Your task to perform on an android device: Show the shopping cart on target.com. Add "razer kraken" to the cart on target.com, then select checkout. Image 0: 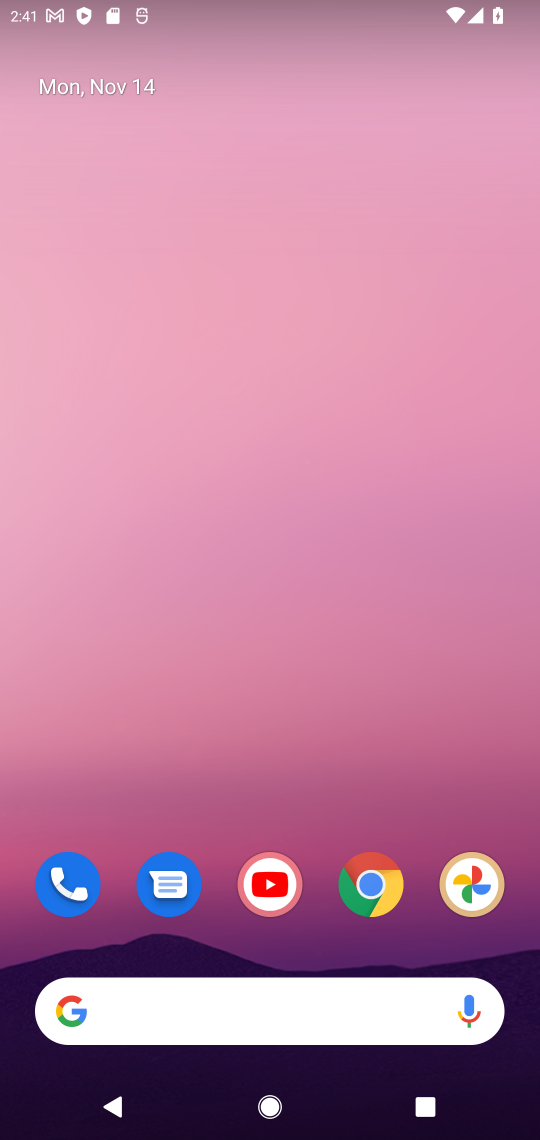
Step 0: click (369, 901)
Your task to perform on an android device: Show the shopping cart on target.com. Add "razer kraken" to the cart on target.com, then select checkout. Image 1: 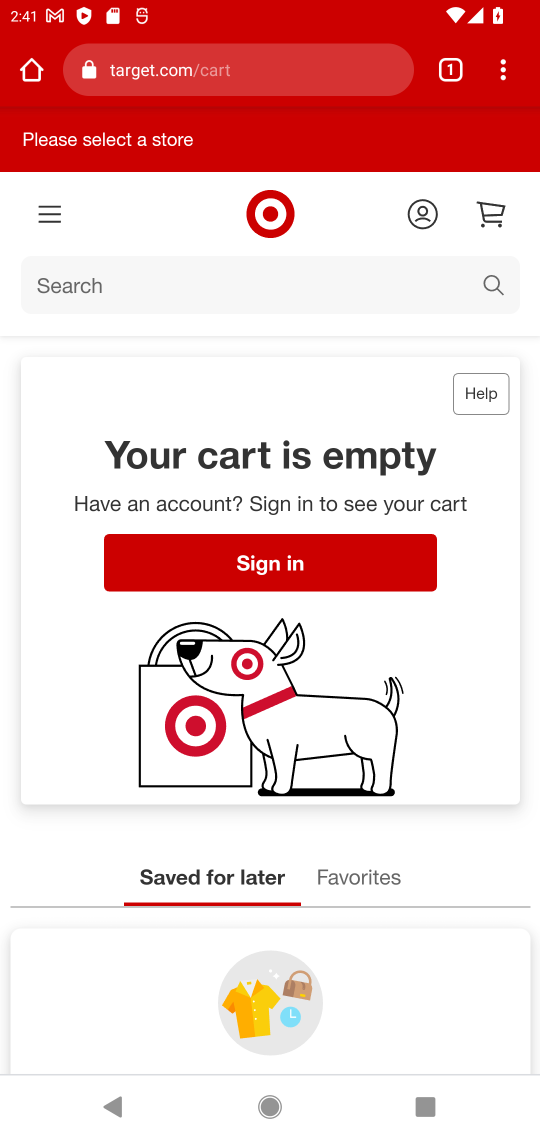
Step 1: click (296, 80)
Your task to perform on an android device: Show the shopping cart on target.com. Add "razer kraken" to the cart on target.com, then select checkout. Image 2: 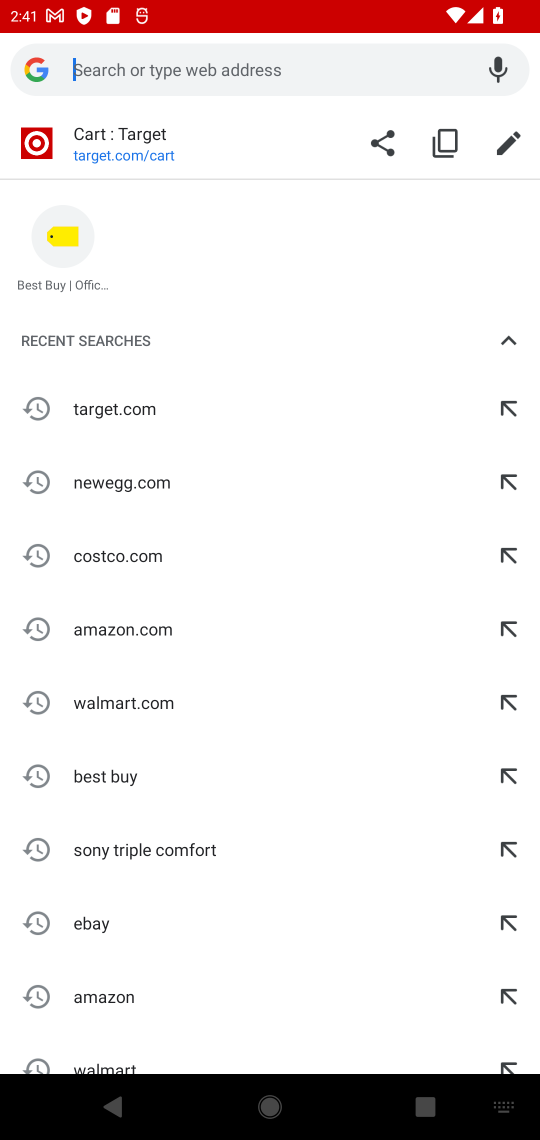
Step 2: press back button
Your task to perform on an android device: Show the shopping cart on target.com. Add "razer kraken" to the cart on target.com, then select checkout. Image 3: 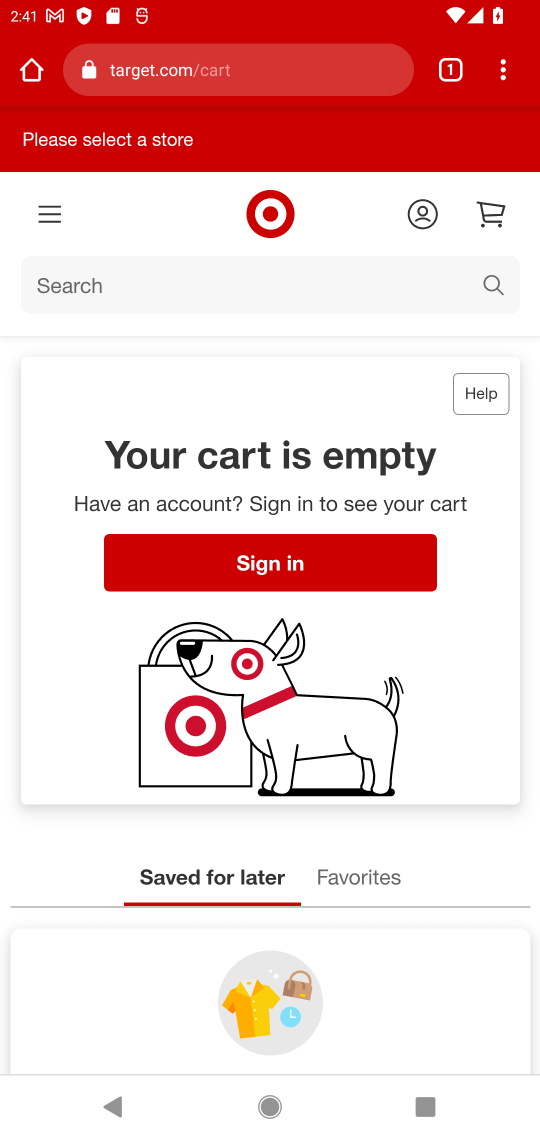
Step 3: click (510, 288)
Your task to perform on an android device: Show the shopping cart on target.com. Add "razer kraken" to the cart on target.com, then select checkout. Image 4: 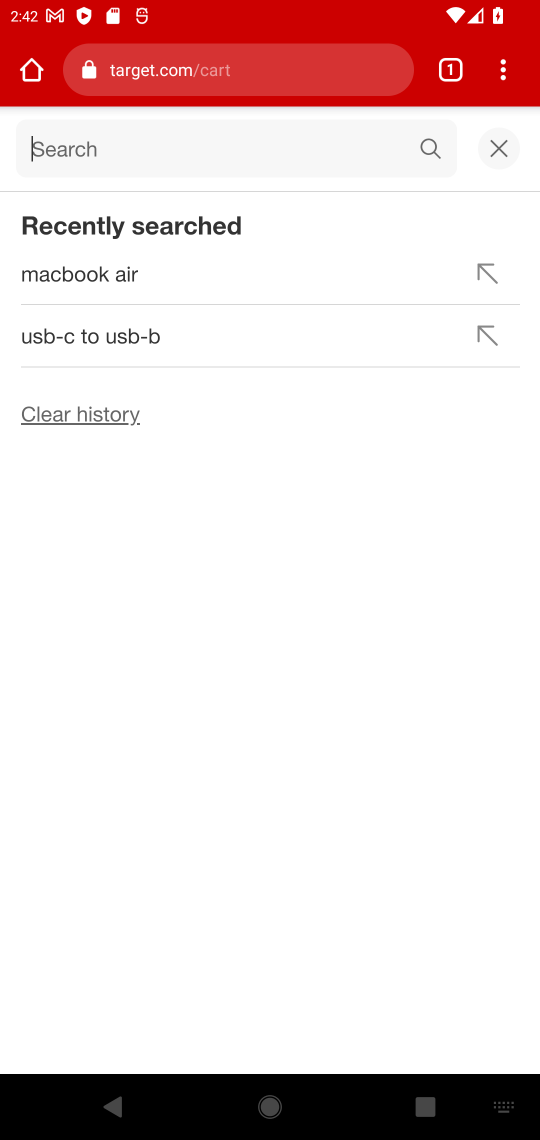
Step 4: type "razer kraken"
Your task to perform on an android device: Show the shopping cart on target.com. Add "razer kraken" to the cart on target.com, then select checkout. Image 5: 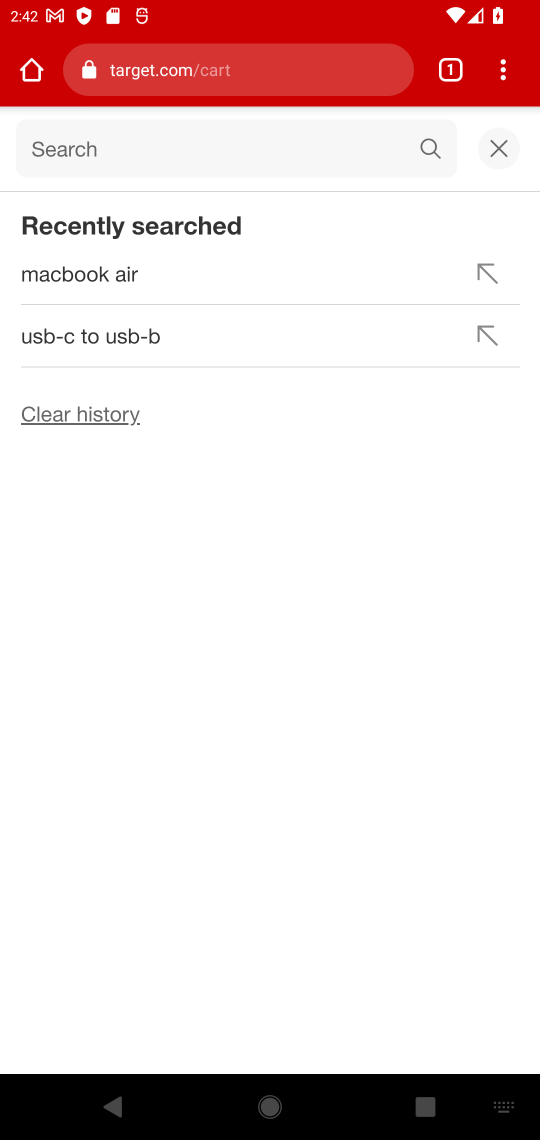
Step 5: press enter
Your task to perform on an android device: Show the shopping cart on target.com. Add "razer kraken" to the cart on target.com, then select checkout. Image 6: 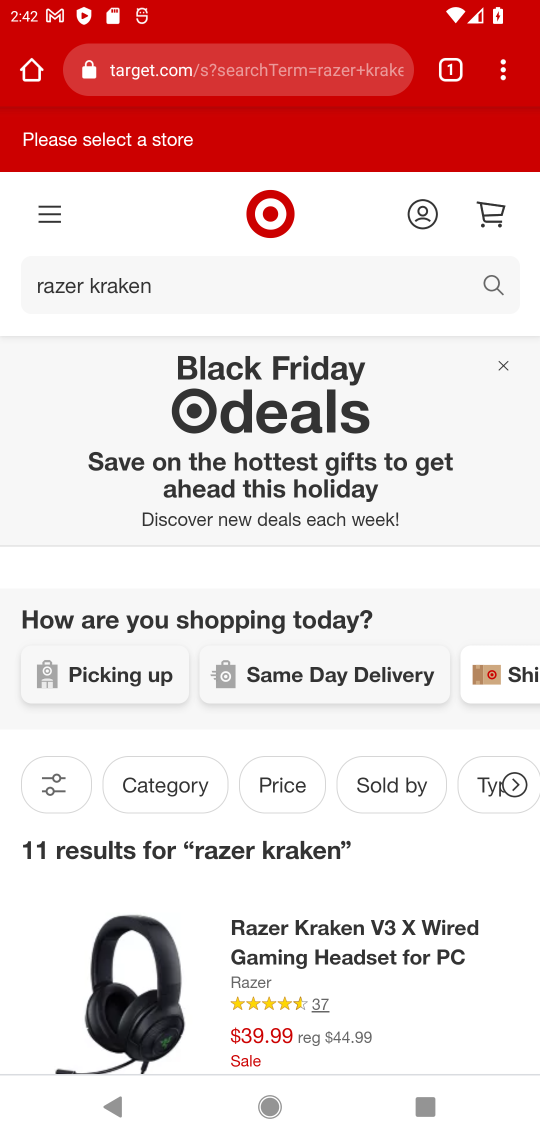
Step 6: click (116, 954)
Your task to perform on an android device: Show the shopping cart on target.com. Add "razer kraken" to the cart on target.com, then select checkout. Image 7: 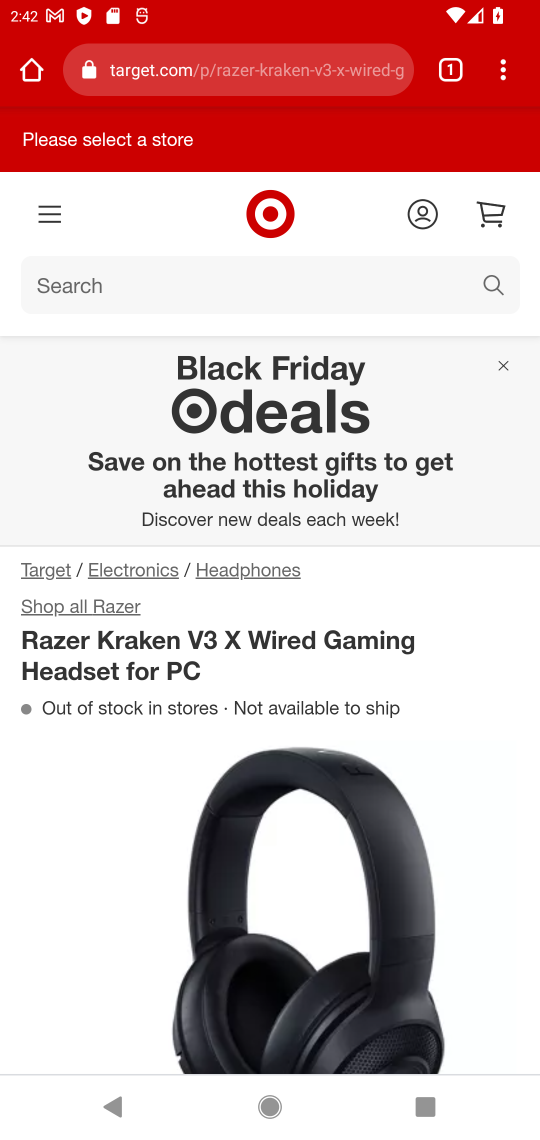
Step 7: drag from (334, 817) to (459, 313)
Your task to perform on an android device: Show the shopping cart on target.com. Add "razer kraken" to the cart on target.com, then select checkout. Image 8: 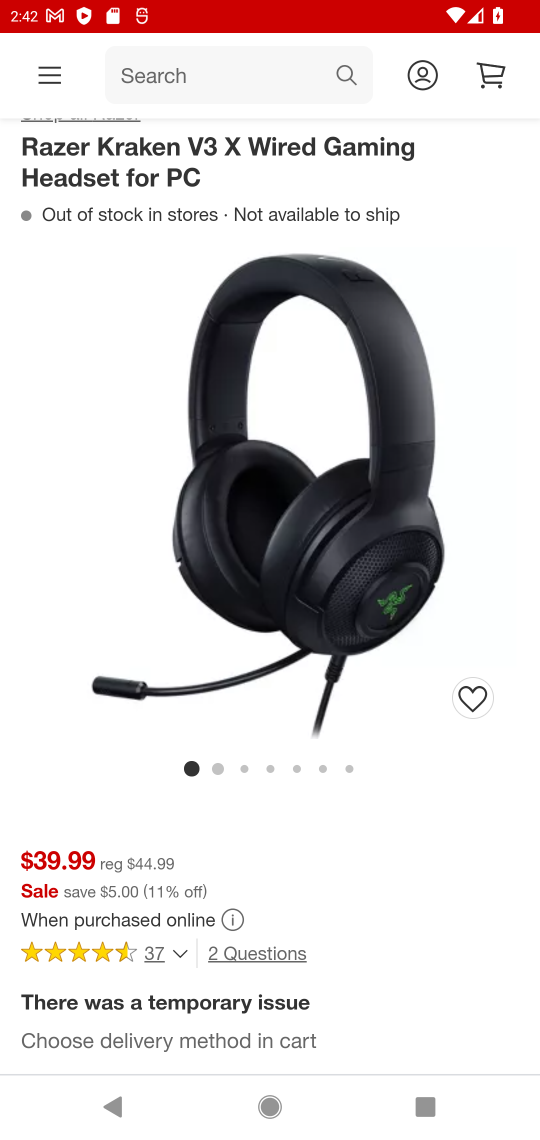
Step 8: drag from (345, 712) to (495, 311)
Your task to perform on an android device: Show the shopping cart on target.com. Add "razer kraken" to the cart on target.com, then select checkout. Image 9: 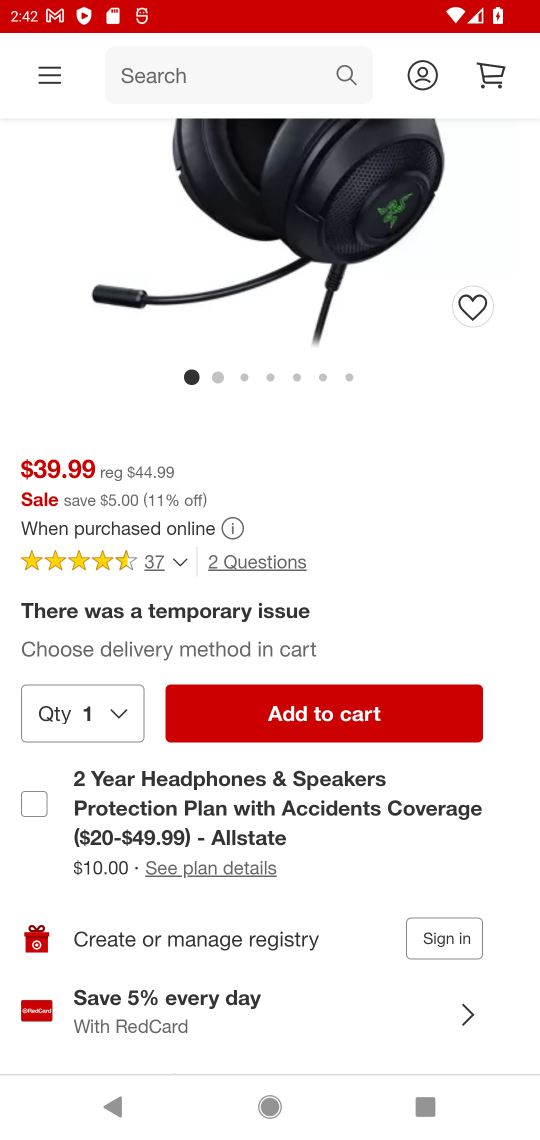
Step 9: click (367, 717)
Your task to perform on an android device: Show the shopping cart on target.com. Add "razer kraken" to the cart on target.com, then select checkout. Image 10: 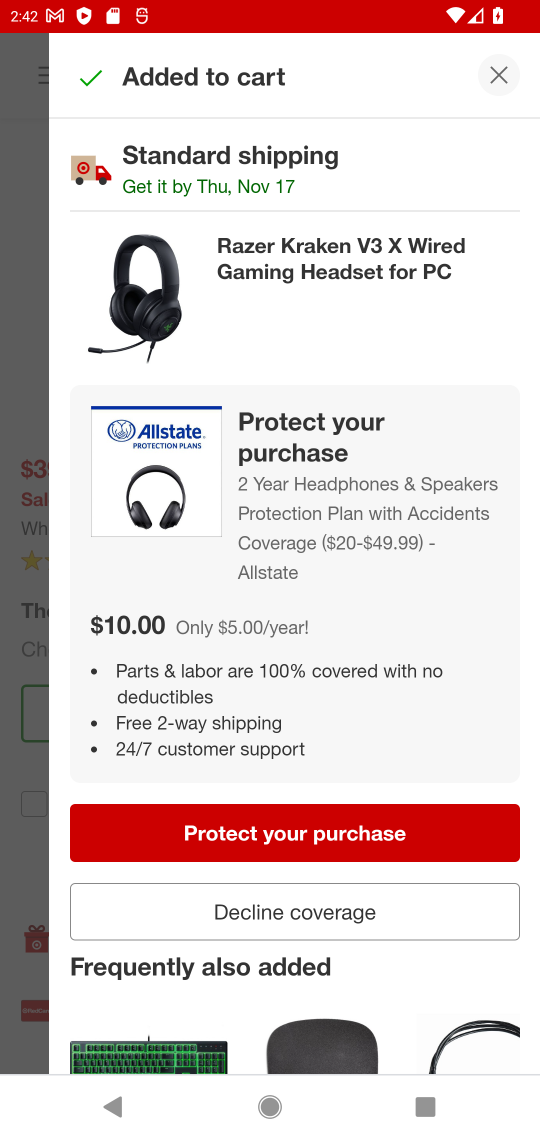
Step 10: click (502, 64)
Your task to perform on an android device: Show the shopping cart on target.com. Add "razer kraken" to the cart on target.com, then select checkout. Image 11: 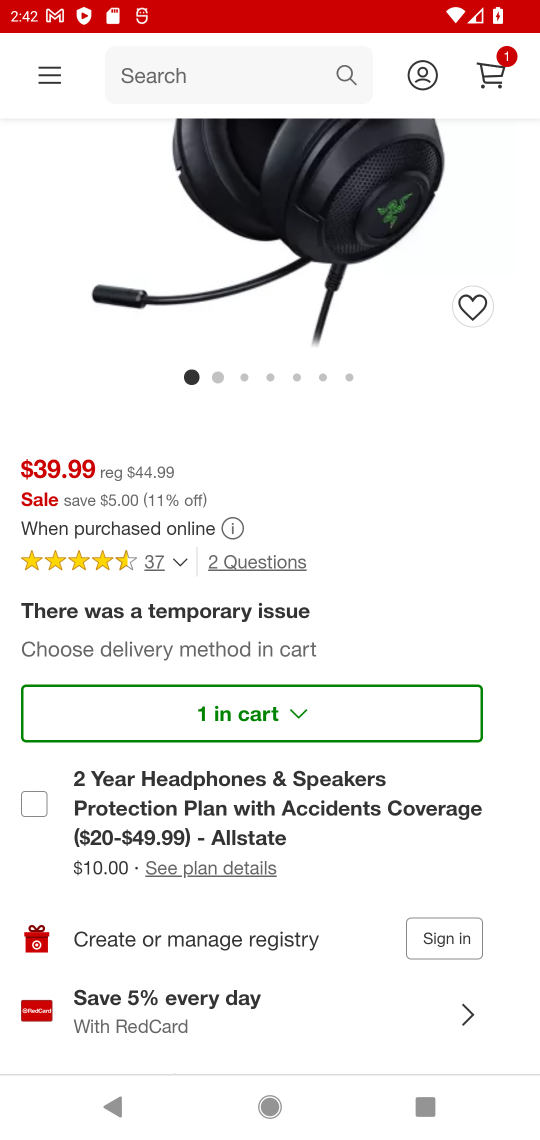
Step 11: click (485, 85)
Your task to perform on an android device: Show the shopping cart on target.com. Add "razer kraken" to the cart on target.com, then select checkout. Image 12: 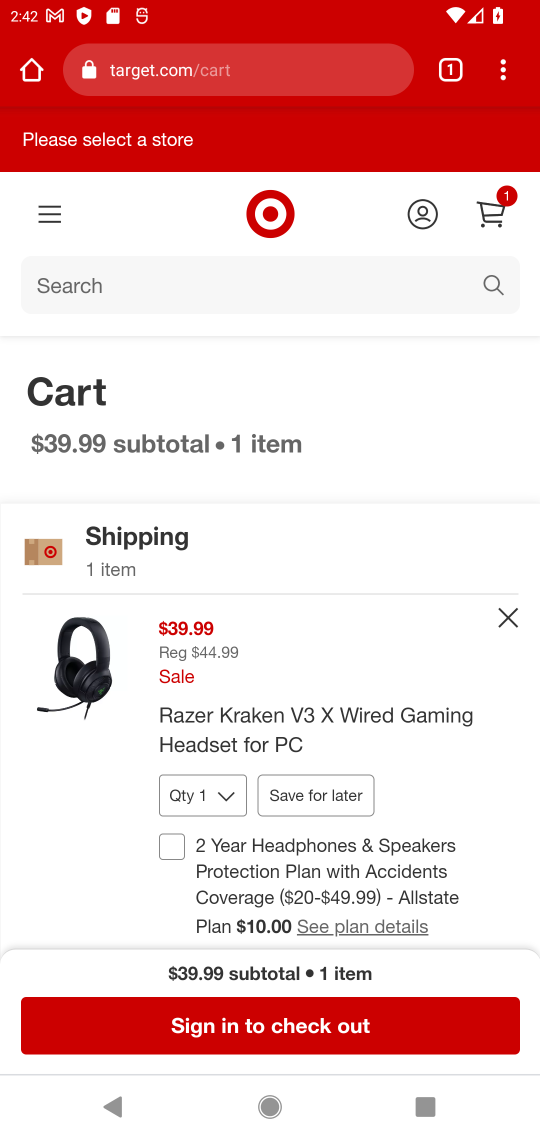
Step 12: click (262, 1039)
Your task to perform on an android device: Show the shopping cart on target.com. Add "razer kraken" to the cart on target.com, then select checkout. Image 13: 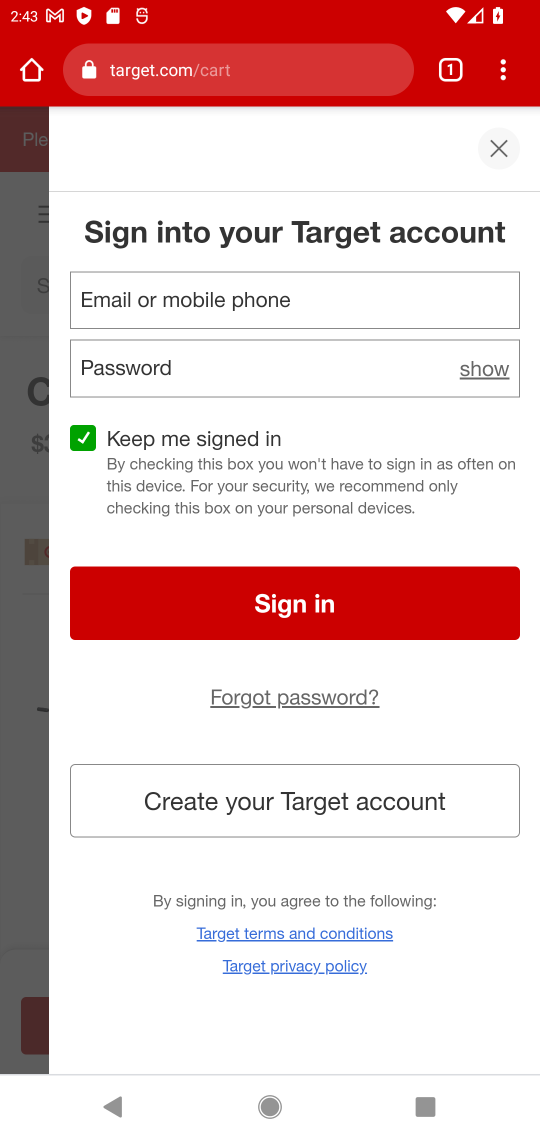
Step 13: task complete